Your task to perform on an android device: check out phone information Image 0: 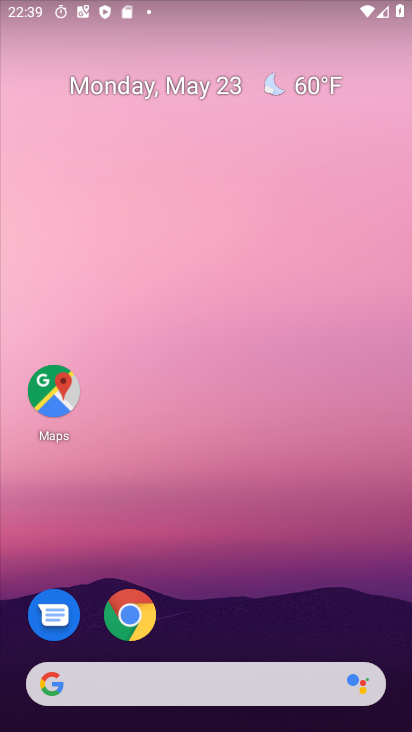
Step 0: drag from (273, 497) to (224, 163)
Your task to perform on an android device: check out phone information Image 1: 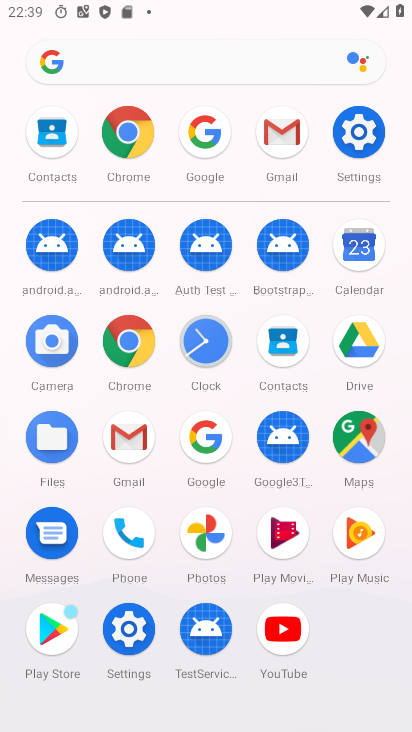
Step 1: click (130, 624)
Your task to perform on an android device: check out phone information Image 2: 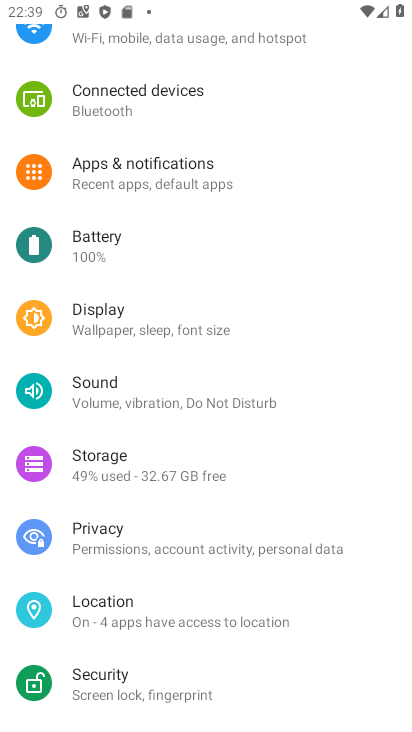
Step 2: drag from (216, 650) to (231, 131)
Your task to perform on an android device: check out phone information Image 3: 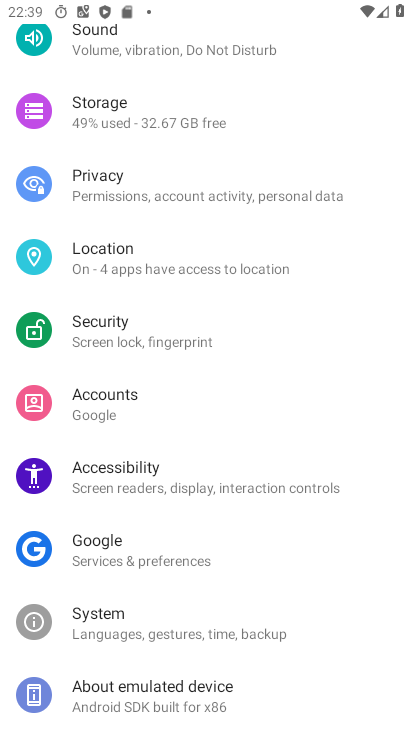
Step 3: click (138, 692)
Your task to perform on an android device: check out phone information Image 4: 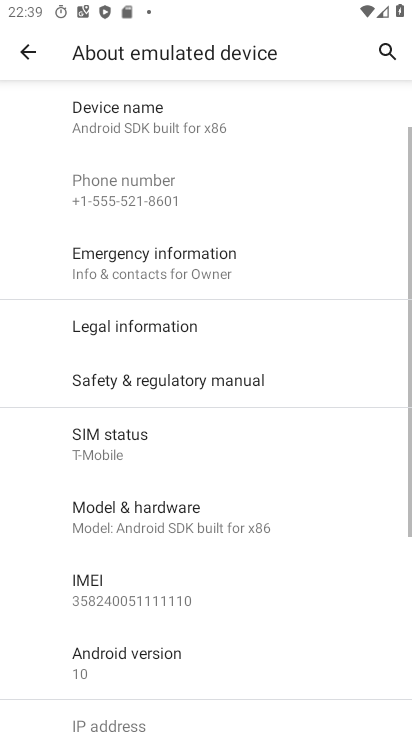
Step 4: task complete